Your task to perform on an android device: turn on javascript in the chrome app Image 0: 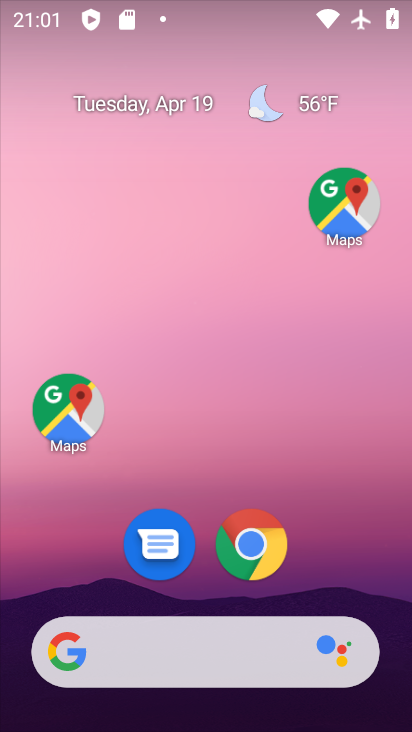
Step 0: press home button
Your task to perform on an android device: turn on javascript in the chrome app Image 1: 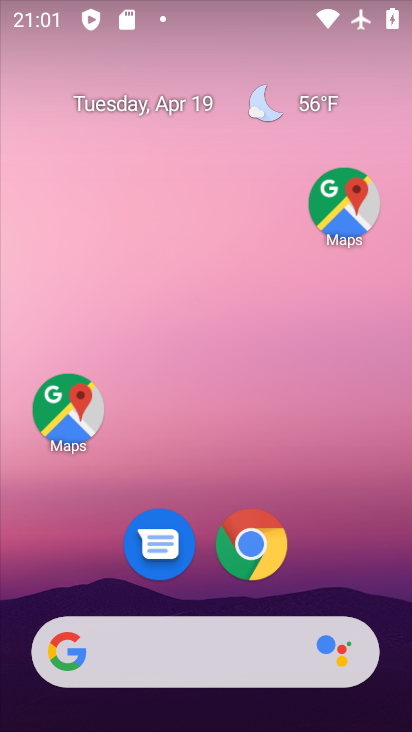
Step 1: drag from (150, 604) to (273, 193)
Your task to perform on an android device: turn on javascript in the chrome app Image 2: 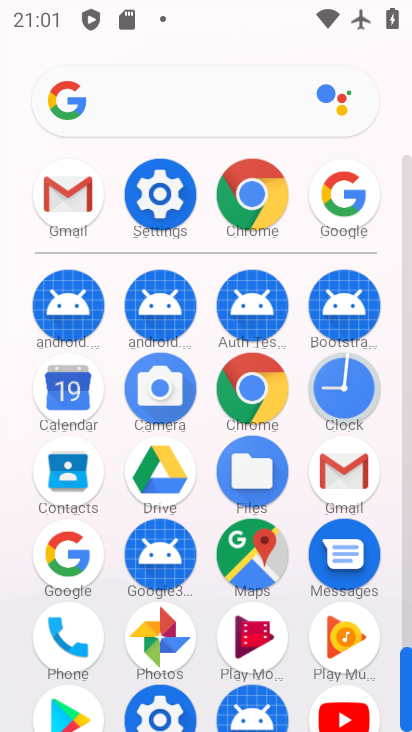
Step 2: click (258, 210)
Your task to perform on an android device: turn on javascript in the chrome app Image 3: 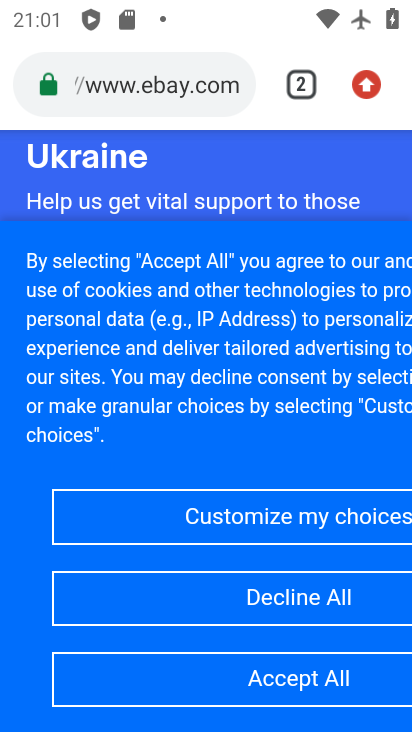
Step 3: click (377, 93)
Your task to perform on an android device: turn on javascript in the chrome app Image 4: 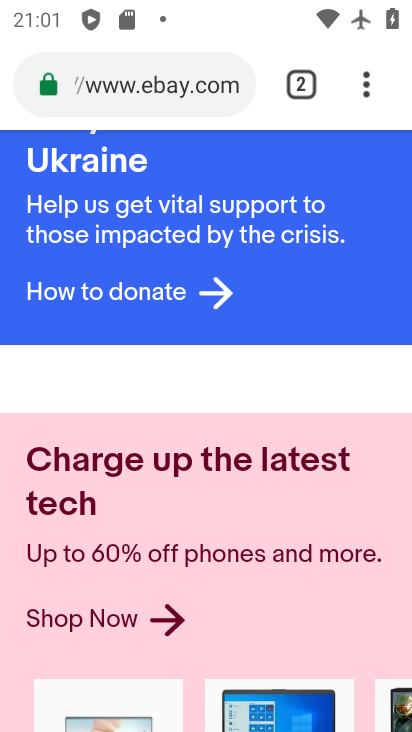
Step 4: click (366, 89)
Your task to perform on an android device: turn on javascript in the chrome app Image 5: 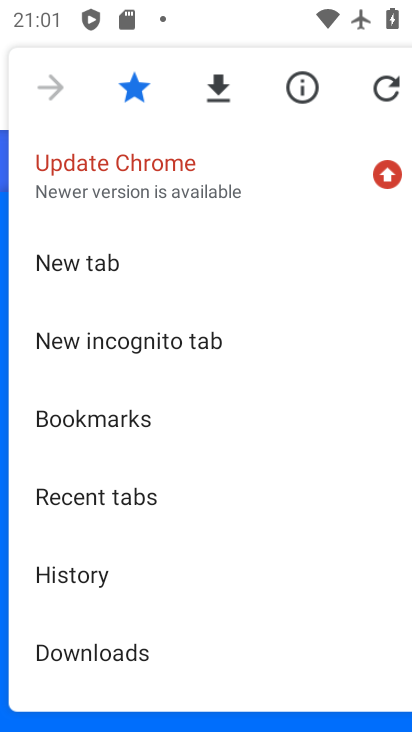
Step 5: drag from (196, 572) to (344, 122)
Your task to perform on an android device: turn on javascript in the chrome app Image 6: 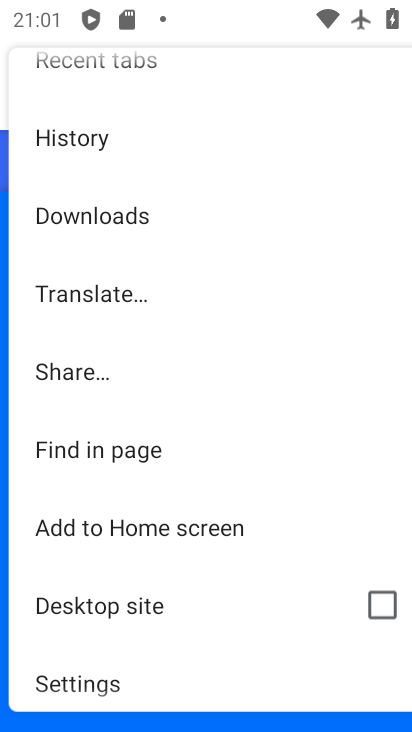
Step 6: drag from (170, 621) to (384, 76)
Your task to perform on an android device: turn on javascript in the chrome app Image 7: 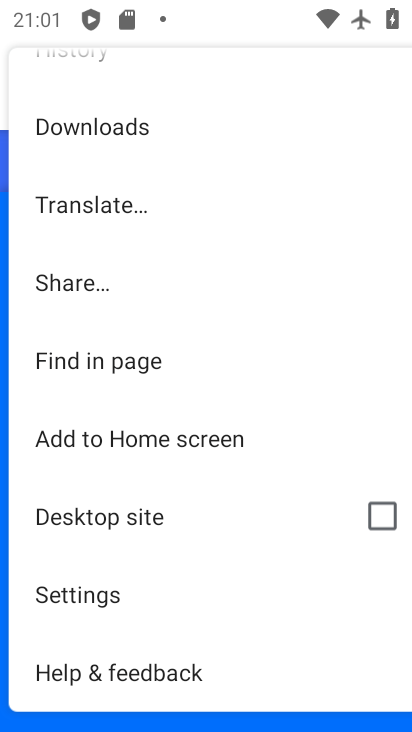
Step 7: click (83, 594)
Your task to perform on an android device: turn on javascript in the chrome app Image 8: 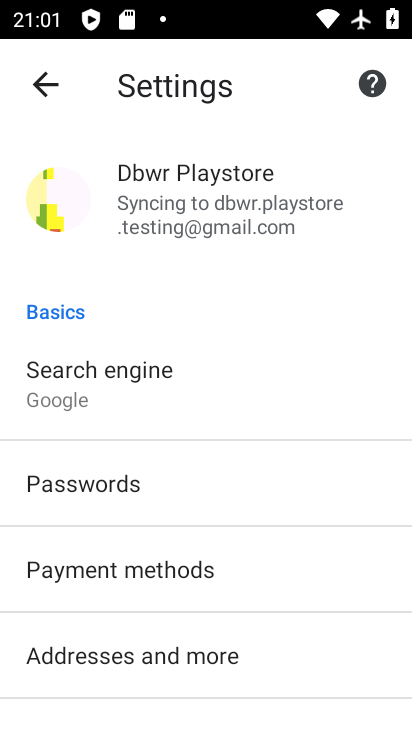
Step 8: drag from (127, 605) to (305, 209)
Your task to perform on an android device: turn on javascript in the chrome app Image 9: 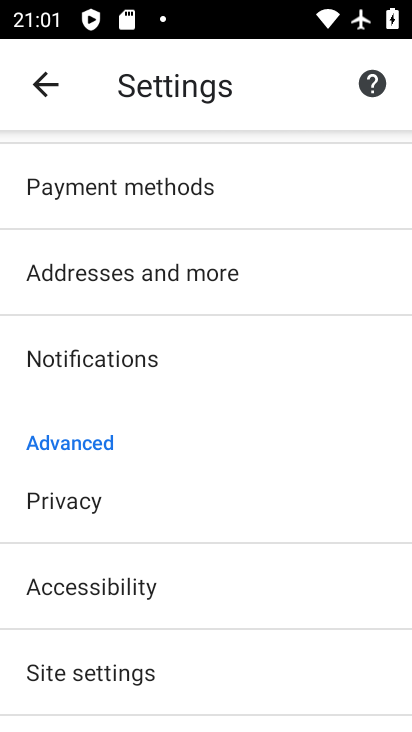
Step 9: click (120, 677)
Your task to perform on an android device: turn on javascript in the chrome app Image 10: 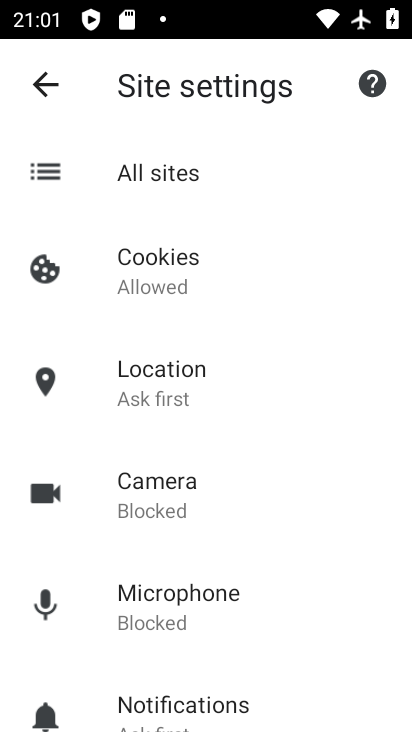
Step 10: drag from (150, 651) to (293, 149)
Your task to perform on an android device: turn on javascript in the chrome app Image 11: 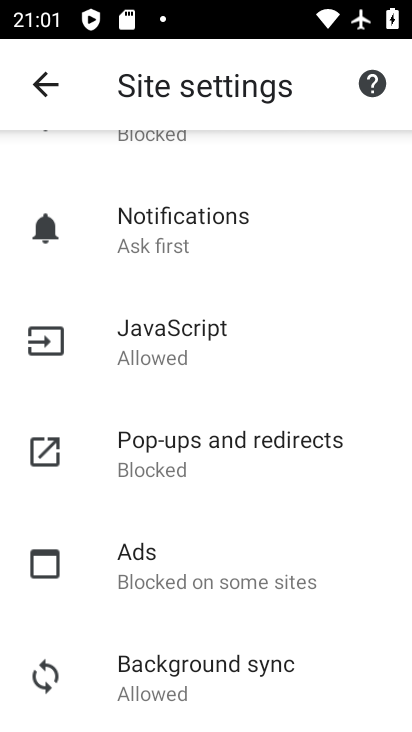
Step 11: click (185, 349)
Your task to perform on an android device: turn on javascript in the chrome app Image 12: 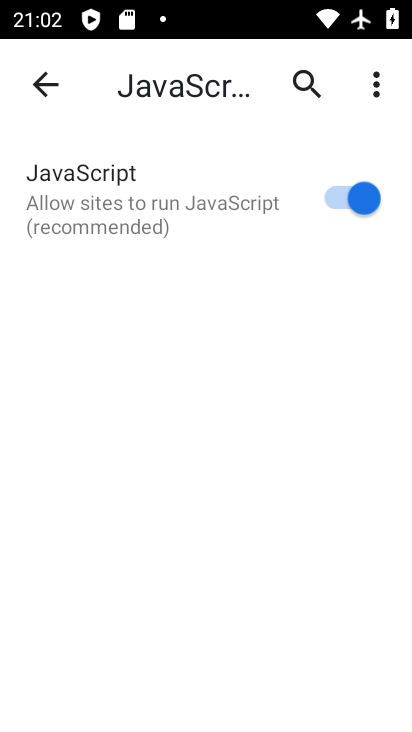
Step 12: task complete